Your task to perform on an android device: Check the weather Image 0: 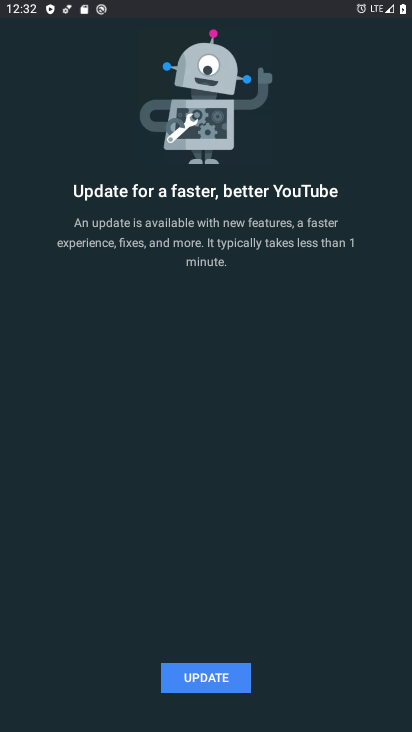
Step 0: press home button
Your task to perform on an android device: Check the weather Image 1: 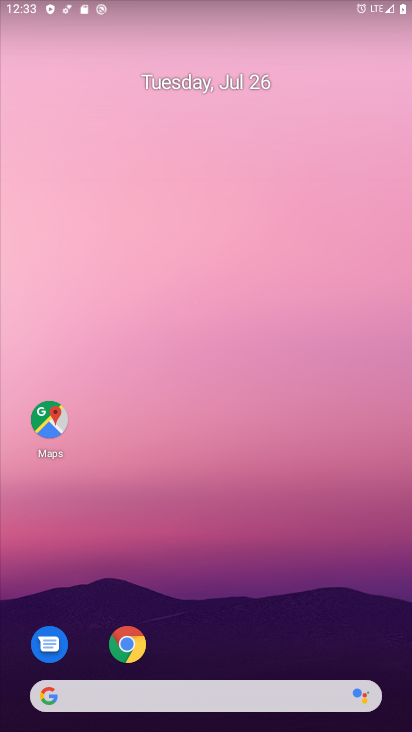
Step 1: click (209, 704)
Your task to perform on an android device: Check the weather Image 2: 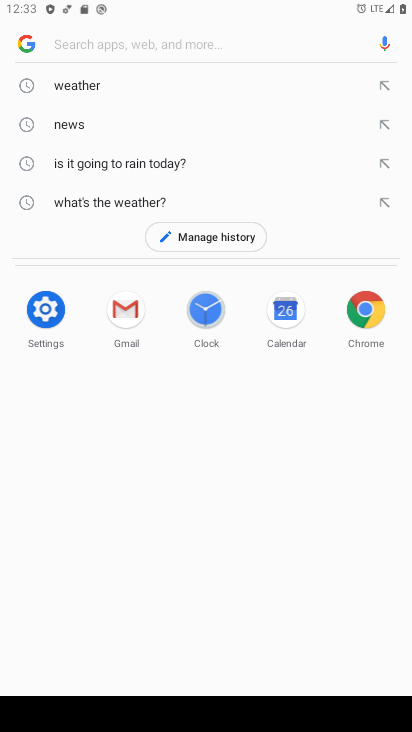
Step 2: type "Check the weather"
Your task to perform on an android device: Check the weather Image 3: 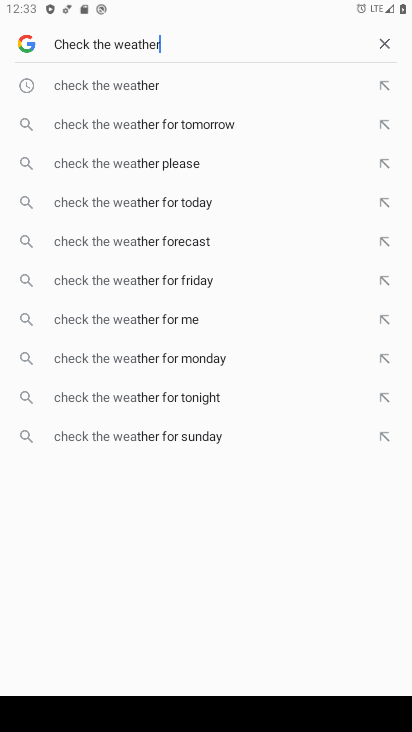
Step 3: press enter
Your task to perform on an android device: Check the weather Image 4: 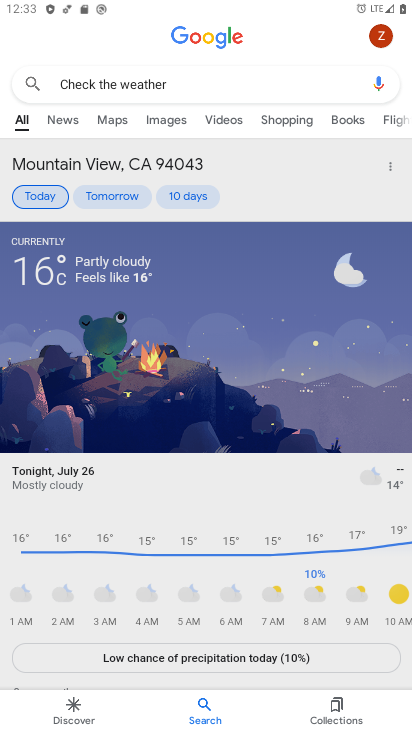
Step 4: task complete